Your task to perform on an android device: Open Maps and search for coffee Image 0: 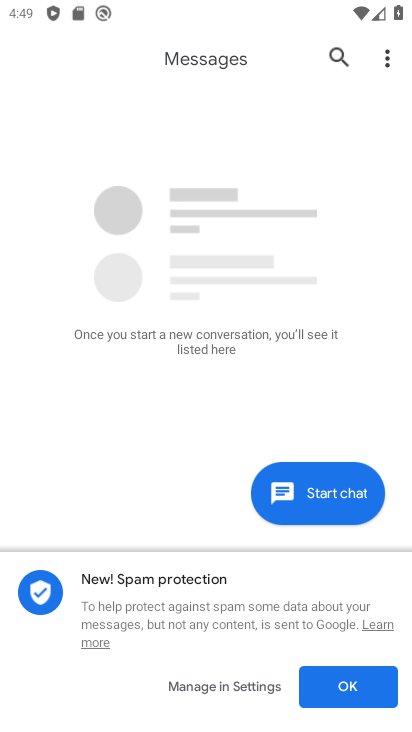
Step 0: press home button
Your task to perform on an android device: Open Maps and search for coffee Image 1: 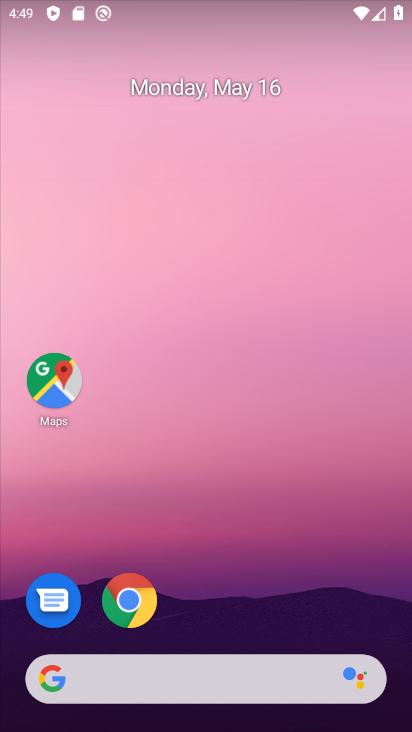
Step 1: drag from (177, 633) to (338, 12)
Your task to perform on an android device: Open Maps and search for coffee Image 2: 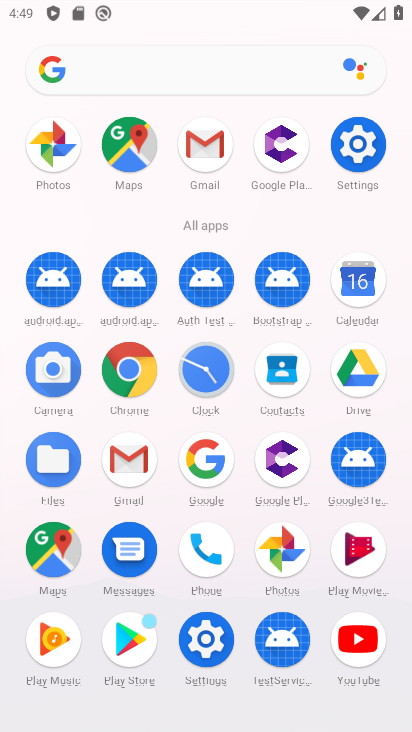
Step 2: click (15, 542)
Your task to perform on an android device: Open Maps and search for coffee Image 3: 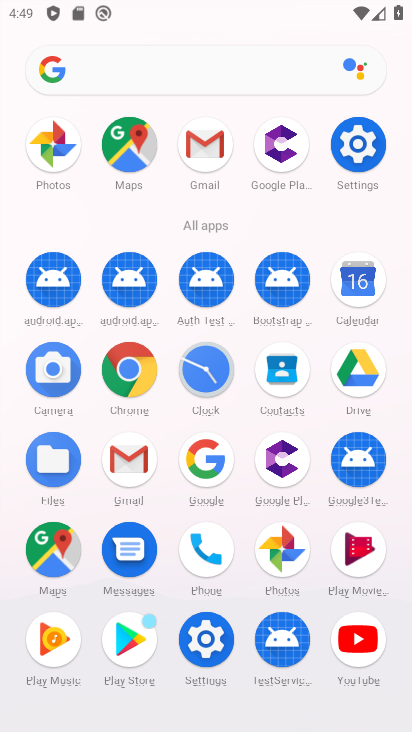
Step 3: click (38, 537)
Your task to perform on an android device: Open Maps and search for coffee Image 4: 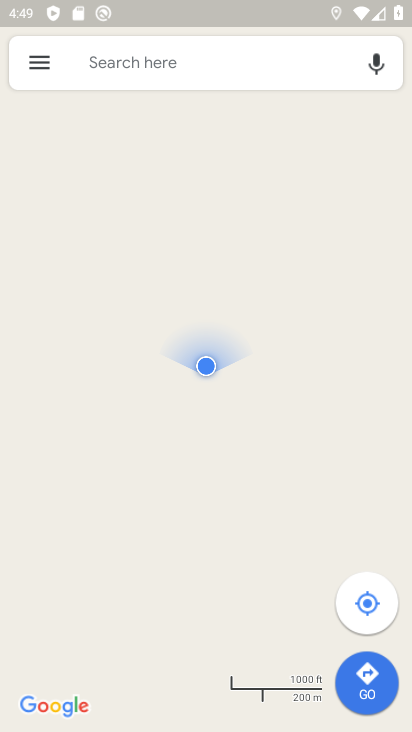
Step 4: click (205, 77)
Your task to perform on an android device: Open Maps and search for coffee Image 5: 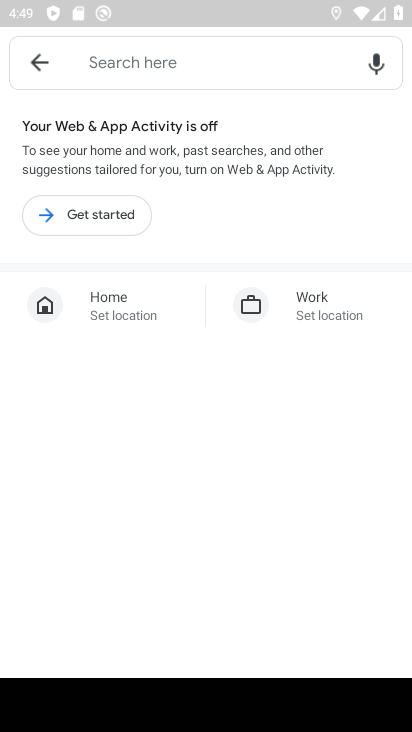
Step 5: click (74, 204)
Your task to perform on an android device: Open Maps and search for coffee Image 6: 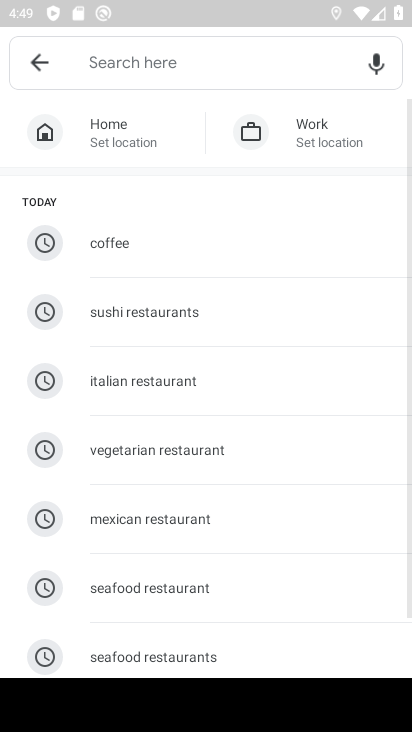
Step 6: click (118, 260)
Your task to perform on an android device: Open Maps and search for coffee Image 7: 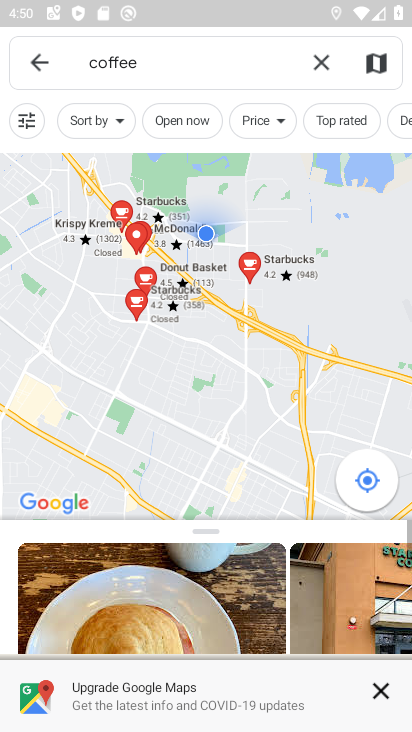
Step 7: task complete